Your task to perform on an android device: read, delete, or share a saved page in the chrome app Image 0: 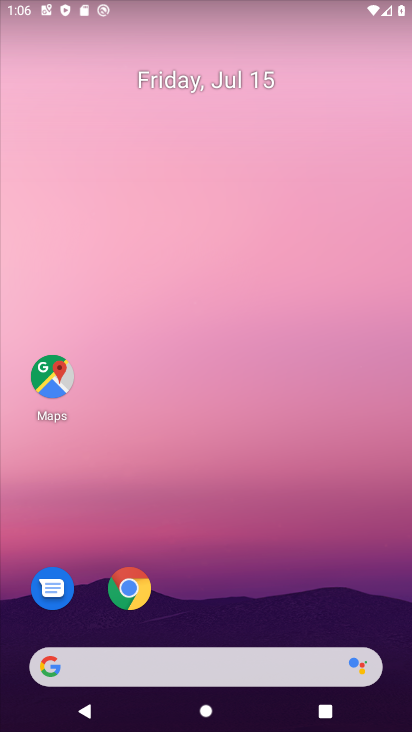
Step 0: click (133, 590)
Your task to perform on an android device: read, delete, or share a saved page in the chrome app Image 1: 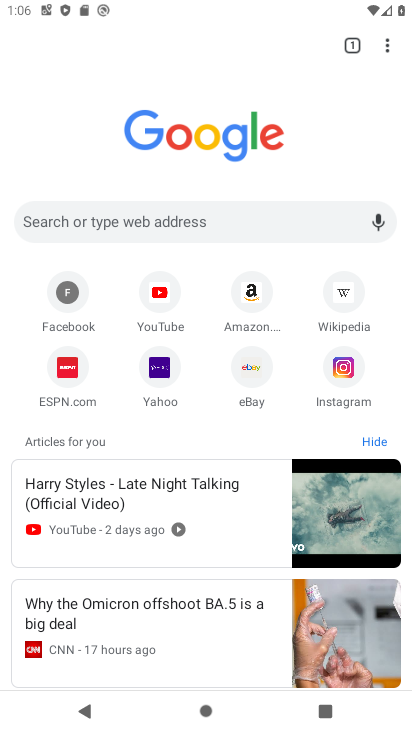
Step 1: click (386, 51)
Your task to perform on an android device: read, delete, or share a saved page in the chrome app Image 2: 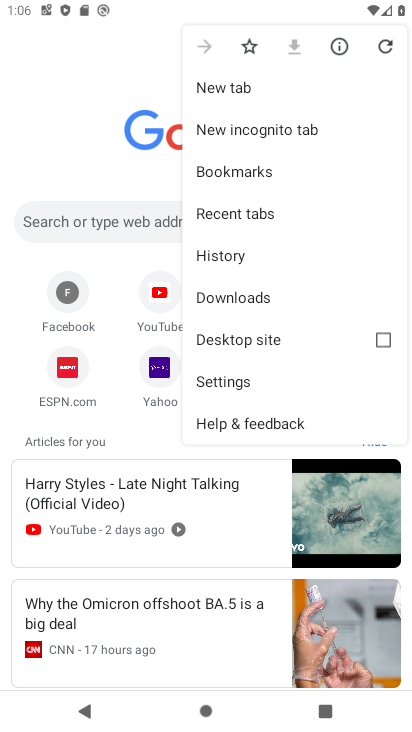
Step 2: click (232, 289)
Your task to perform on an android device: read, delete, or share a saved page in the chrome app Image 3: 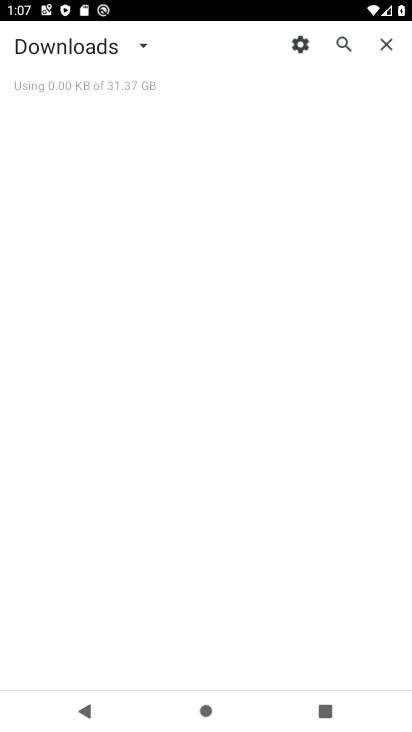
Step 3: click (137, 41)
Your task to perform on an android device: read, delete, or share a saved page in the chrome app Image 4: 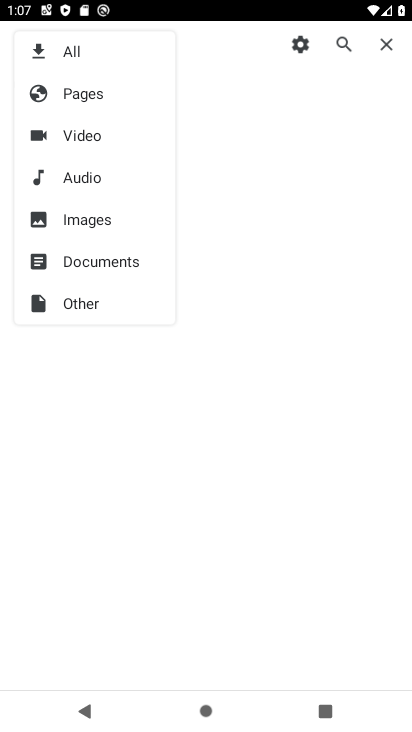
Step 4: click (77, 87)
Your task to perform on an android device: read, delete, or share a saved page in the chrome app Image 5: 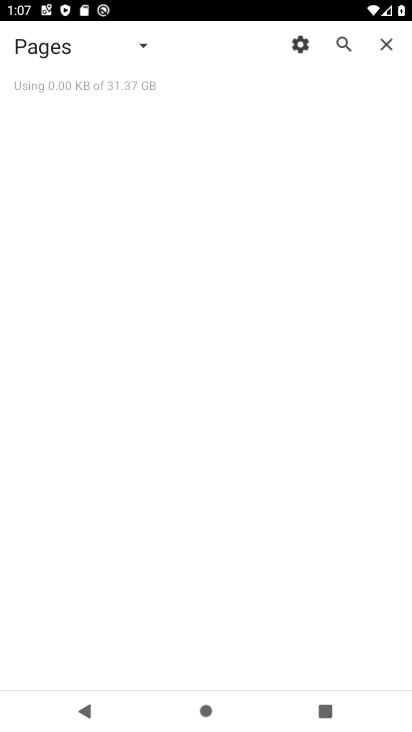
Step 5: task complete